Your task to perform on an android device: allow notifications from all sites in the chrome app Image 0: 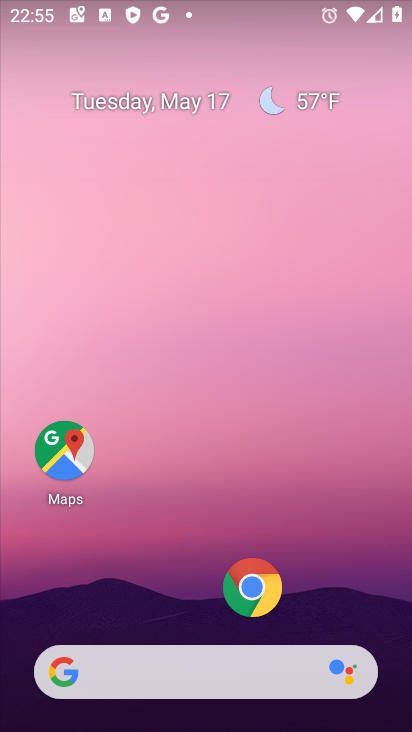
Step 0: drag from (164, 521) to (286, 139)
Your task to perform on an android device: allow notifications from all sites in the chrome app Image 1: 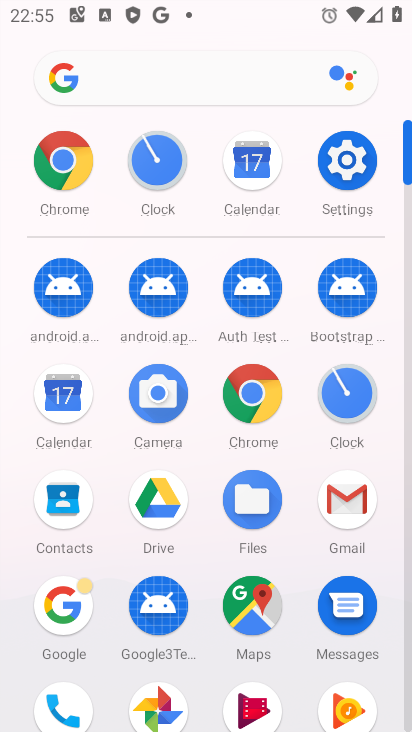
Step 1: click (229, 395)
Your task to perform on an android device: allow notifications from all sites in the chrome app Image 2: 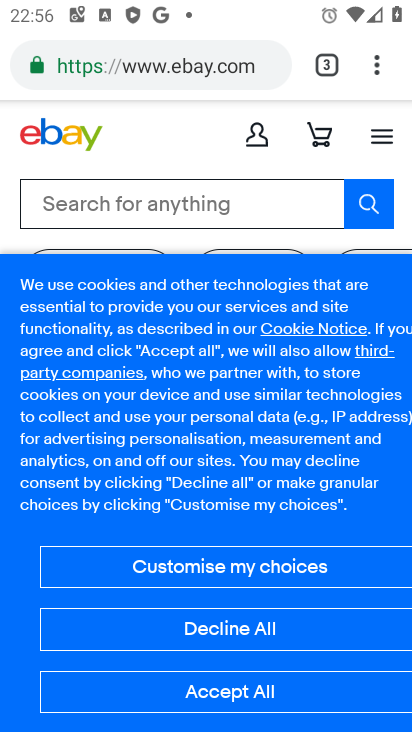
Step 2: click (380, 76)
Your task to perform on an android device: allow notifications from all sites in the chrome app Image 3: 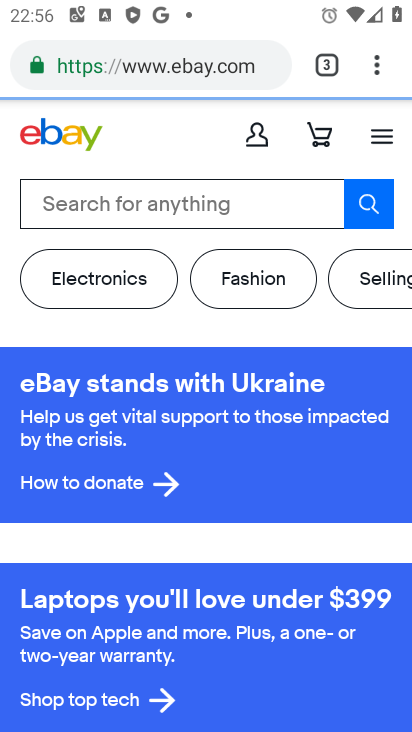
Step 3: click (368, 68)
Your task to perform on an android device: allow notifications from all sites in the chrome app Image 4: 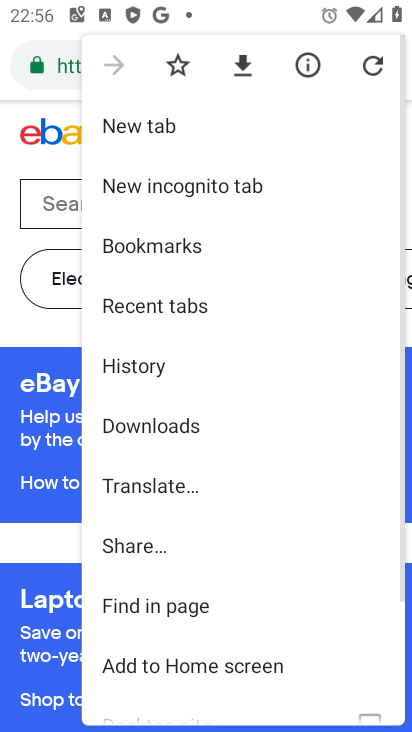
Step 4: drag from (241, 481) to (288, 156)
Your task to perform on an android device: allow notifications from all sites in the chrome app Image 5: 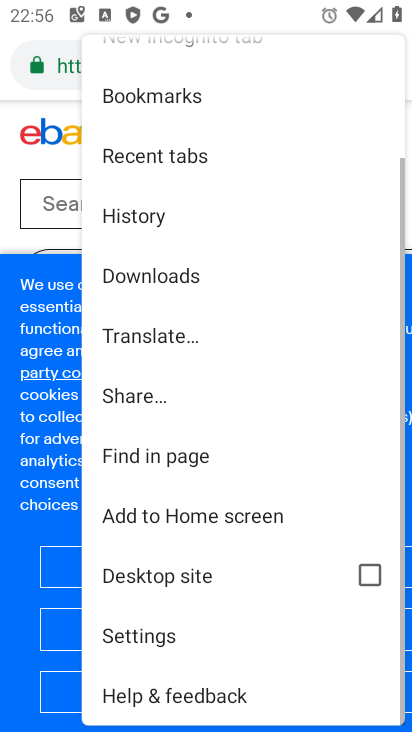
Step 5: click (188, 638)
Your task to perform on an android device: allow notifications from all sites in the chrome app Image 6: 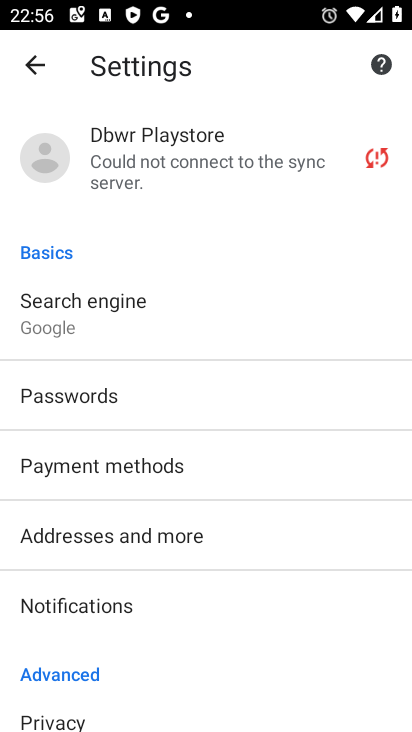
Step 6: click (88, 617)
Your task to perform on an android device: allow notifications from all sites in the chrome app Image 7: 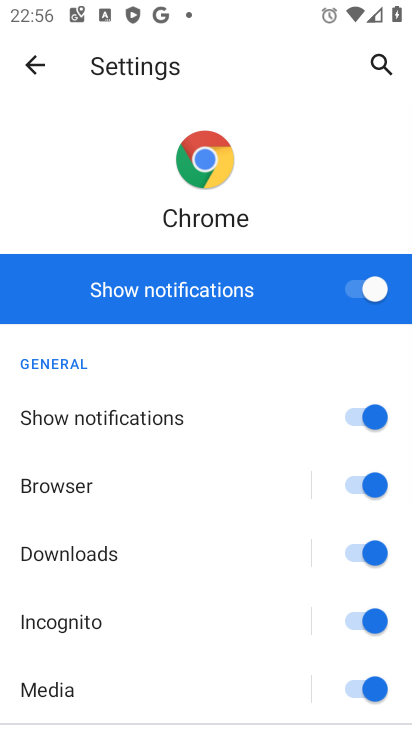
Step 7: drag from (276, 558) to (374, 7)
Your task to perform on an android device: allow notifications from all sites in the chrome app Image 8: 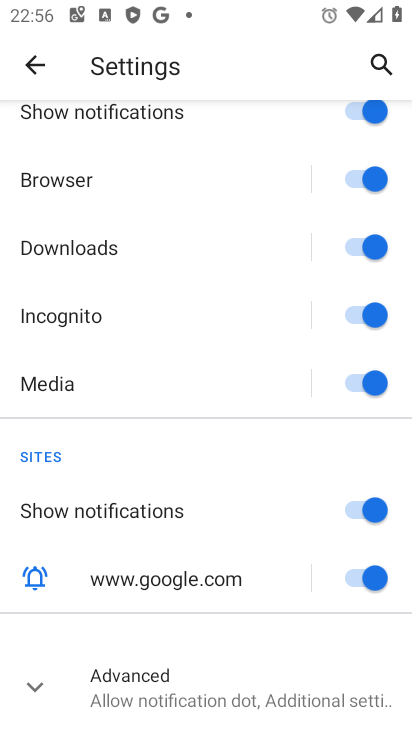
Step 8: drag from (147, 670) to (171, 505)
Your task to perform on an android device: allow notifications from all sites in the chrome app Image 9: 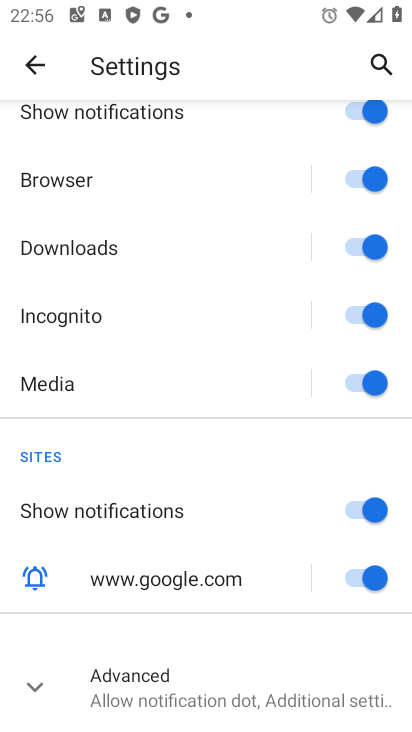
Step 9: click (189, 675)
Your task to perform on an android device: allow notifications from all sites in the chrome app Image 10: 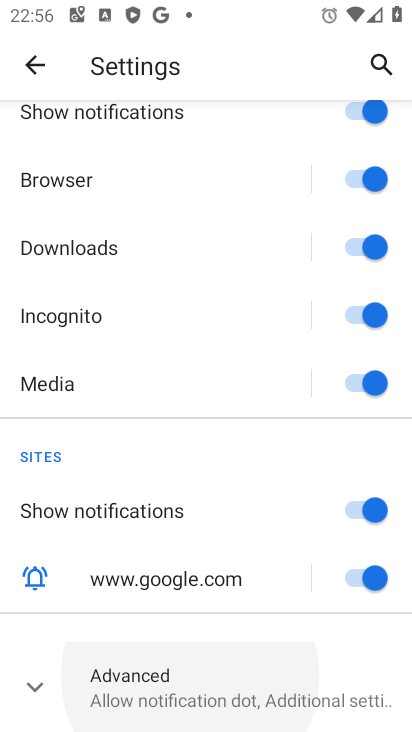
Step 10: task complete